Your task to perform on an android device: turn off location history Image 0: 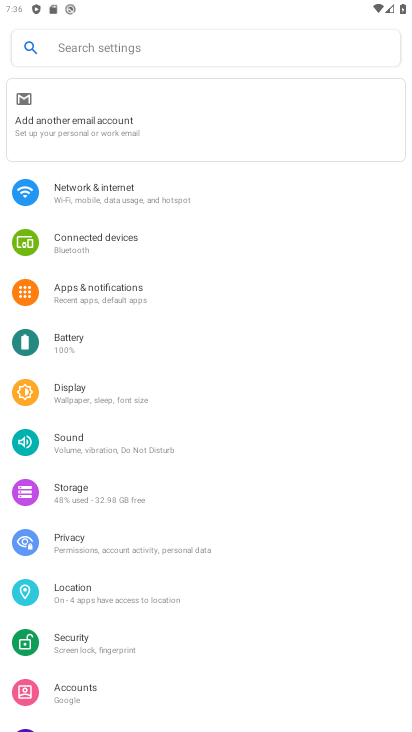
Step 0: drag from (213, 543) to (239, 125)
Your task to perform on an android device: turn off location history Image 1: 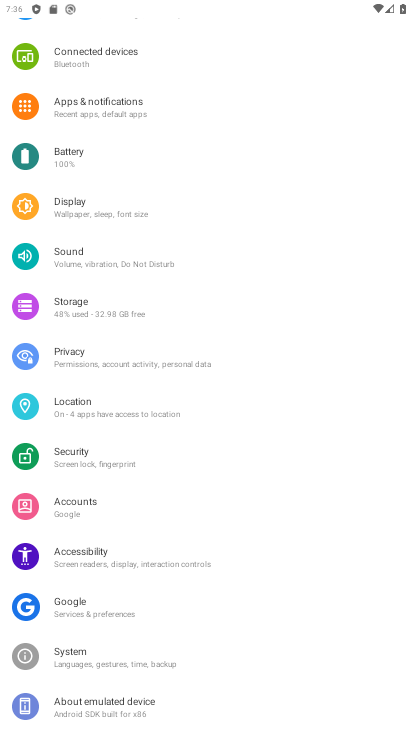
Step 1: click (67, 408)
Your task to perform on an android device: turn off location history Image 2: 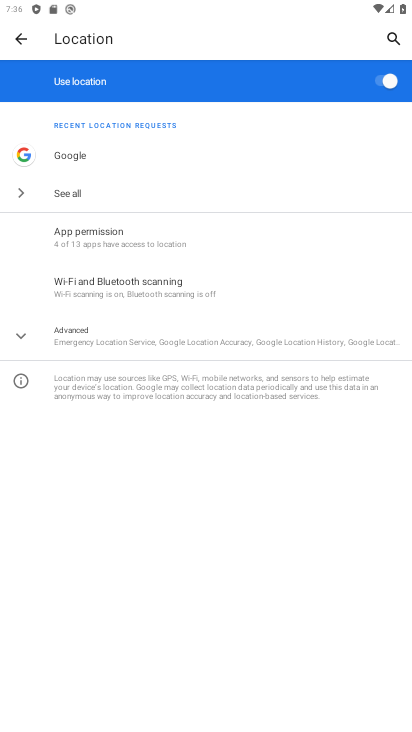
Step 2: click (110, 328)
Your task to perform on an android device: turn off location history Image 3: 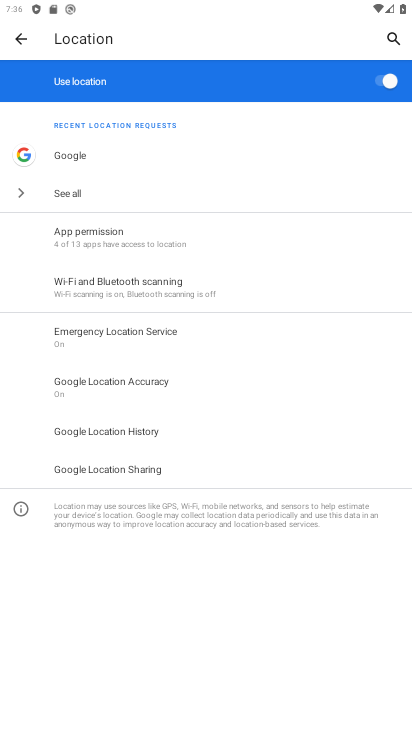
Step 3: click (136, 427)
Your task to perform on an android device: turn off location history Image 4: 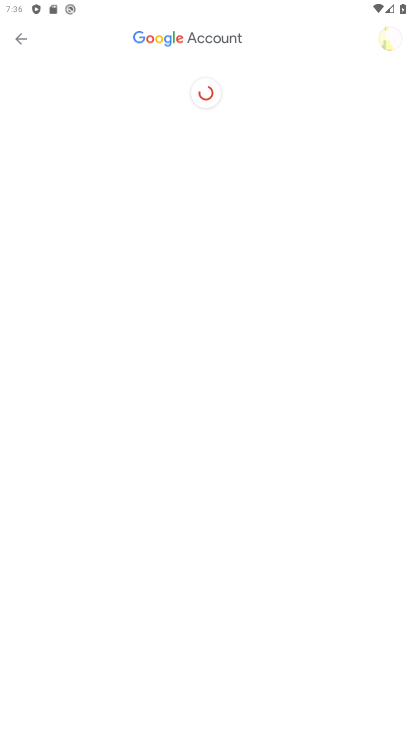
Step 4: task complete